Your task to perform on an android device: check out phone information Image 0: 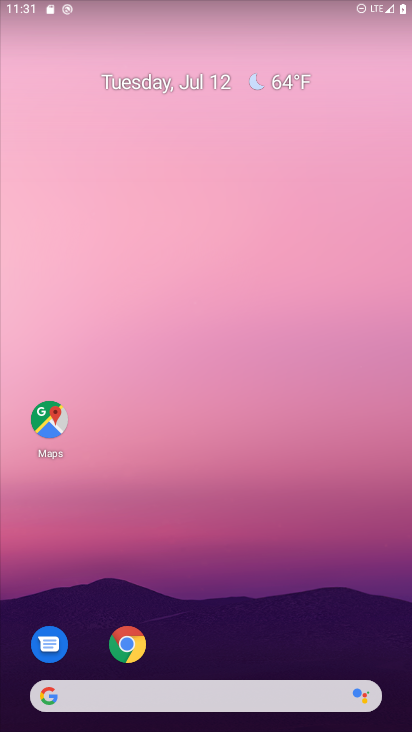
Step 0: drag from (272, 663) to (251, 151)
Your task to perform on an android device: check out phone information Image 1: 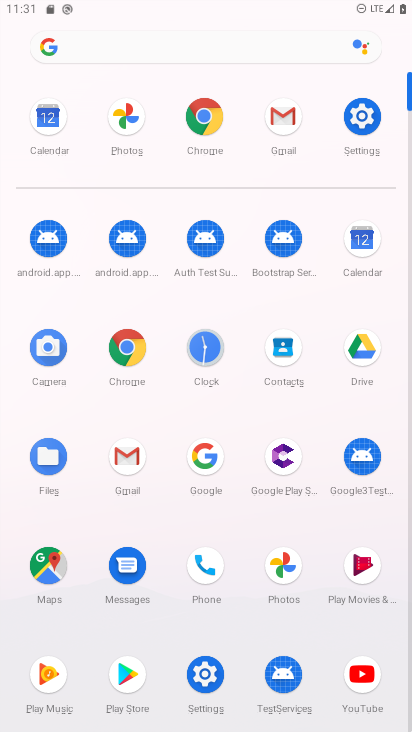
Step 1: click (198, 682)
Your task to perform on an android device: check out phone information Image 2: 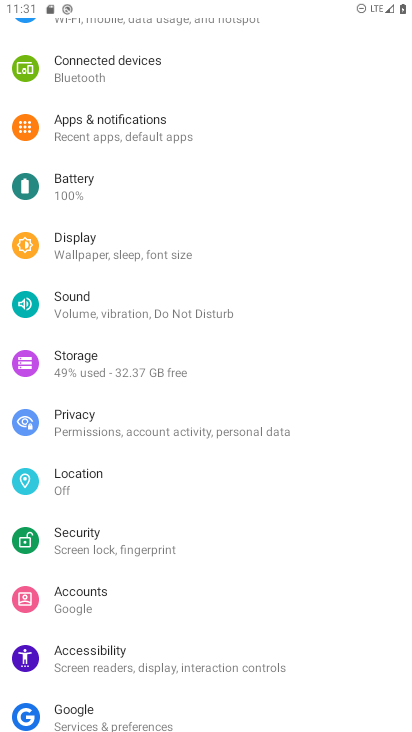
Step 2: drag from (216, 682) to (209, 322)
Your task to perform on an android device: check out phone information Image 3: 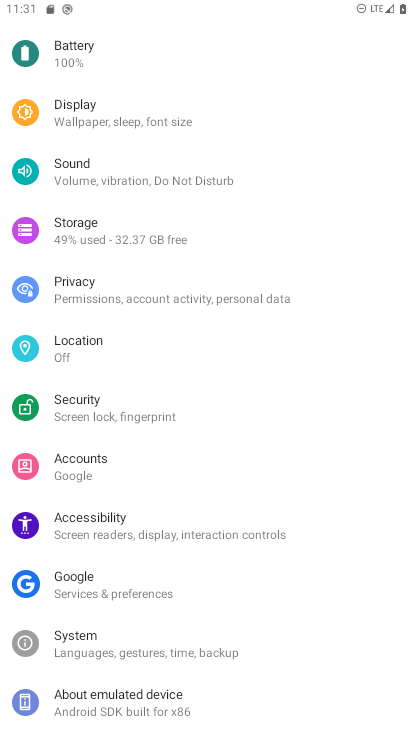
Step 3: click (166, 645)
Your task to perform on an android device: check out phone information Image 4: 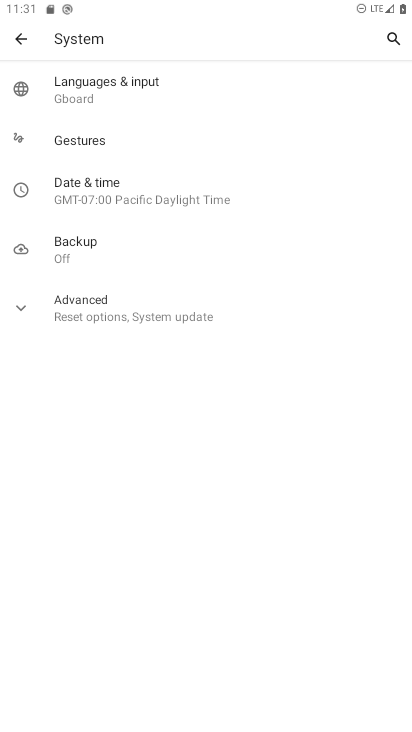
Step 4: task complete